Your task to perform on an android device: toggle sleep mode Image 0: 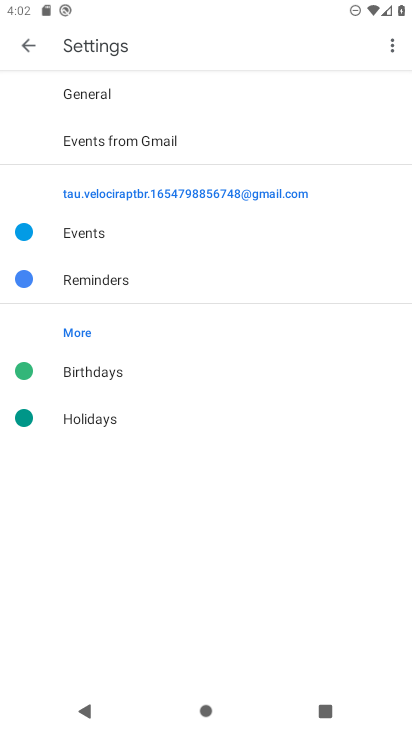
Step 0: press home button
Your task to perform on an android device: toggle sleep mode Image 1: 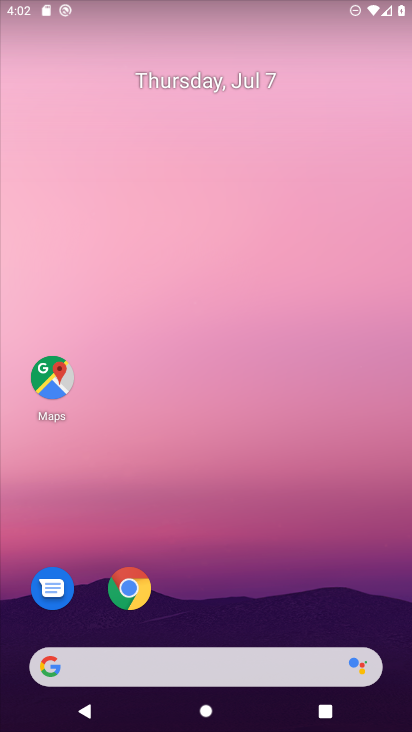
Step 1: drag from (272, 572) to (181, 147)
Your task to perform on an android device: toggle sleep mode Image 2: 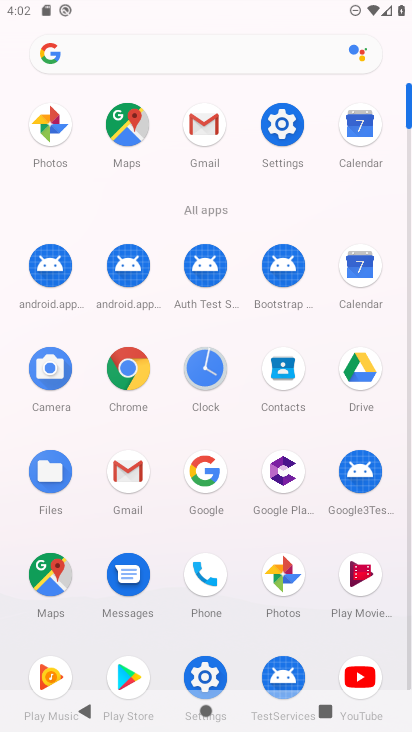
Step 2: click (281, 125)
Your task to perform on an android device: toggle sleep mode Image 3: 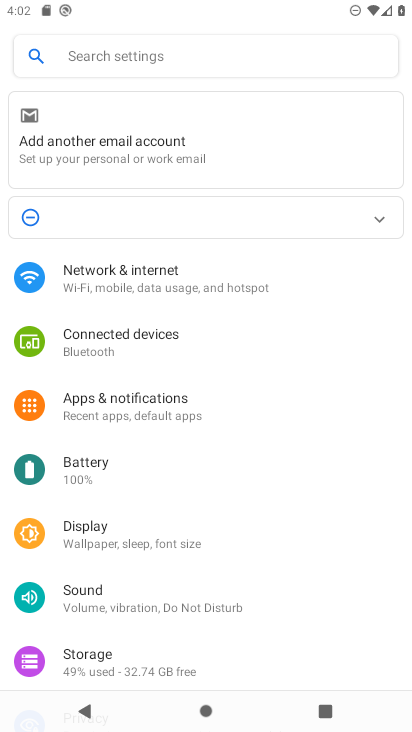
Step 3: click (170, 539)
Your task to perform on an android device: toggle sleep mode Image 4: 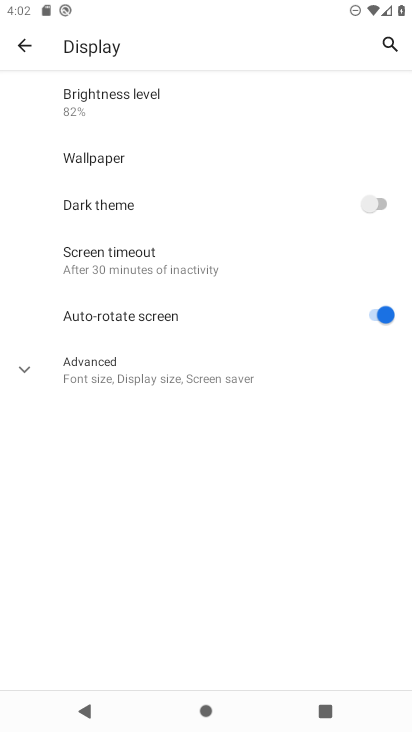
Step 4: click (280, 379)
Your task to perform on an android device: toggle sleep mode Image 5: 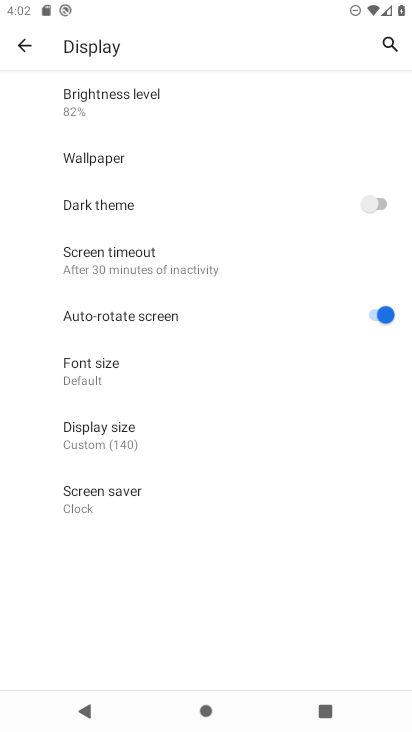
Step 5: task complete